Your task to perform on an android device: Open display settings Image 0: 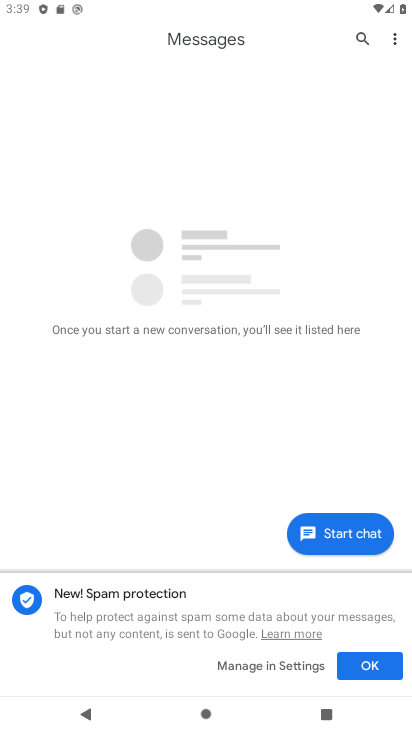
Step 0: press home button
Your task to perform on an android device: Open display settings Image 1: 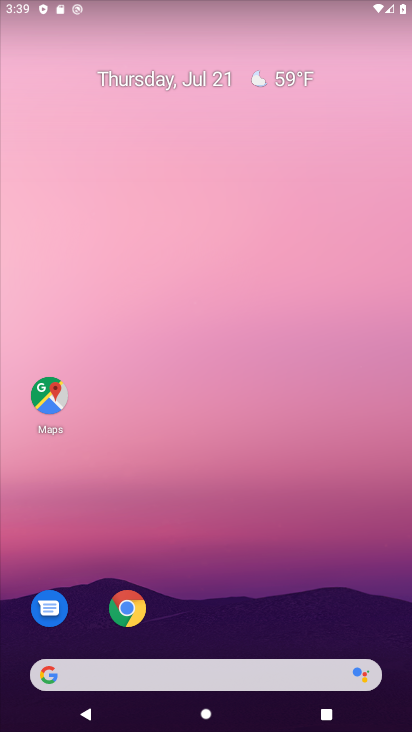
Step 1: drag from (283, 631) to (308, 2)
Your task to perform on an android device: Open display settings Image 2: 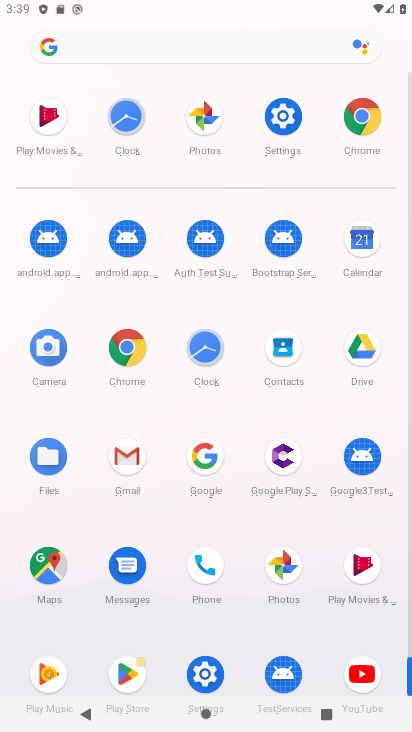
Step 2: click (284, 118)
Your task to perform on an android device: Open display settings Image 3: 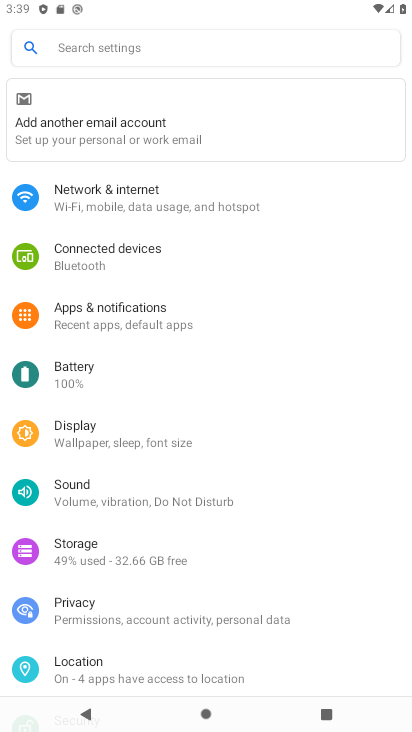
Step 3: click (108, 426)
Your task to perform on an android device: Open display settings Image 4: 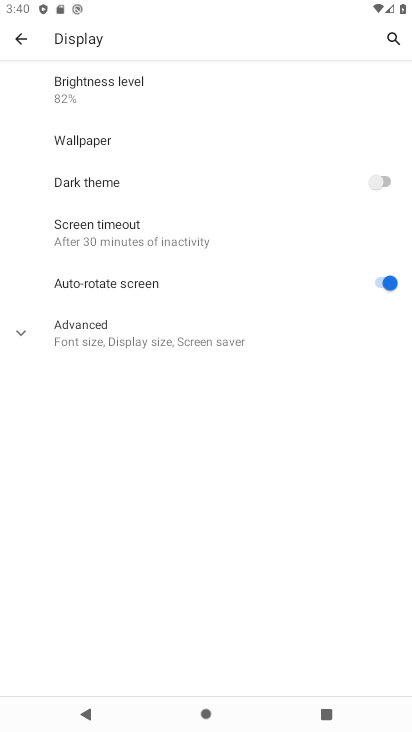
Step 4: task complete